Your task to perform on an android device: Go to Yahoo.com Image 0: 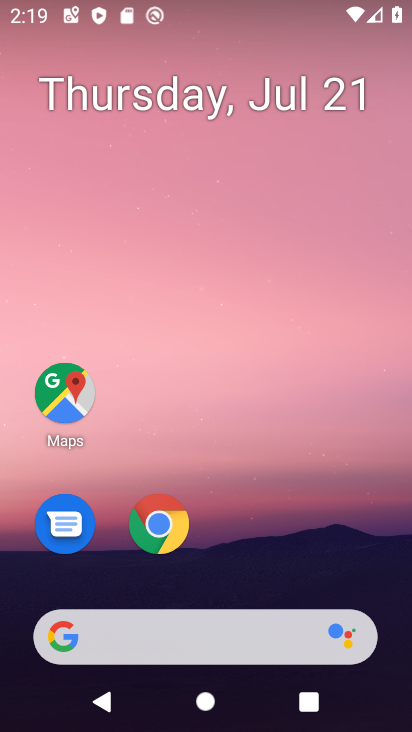
Step 0: drag from (276, 502) to (259, 18)
Your task to perform on an android device: Go to Yahoo.com Image 1: 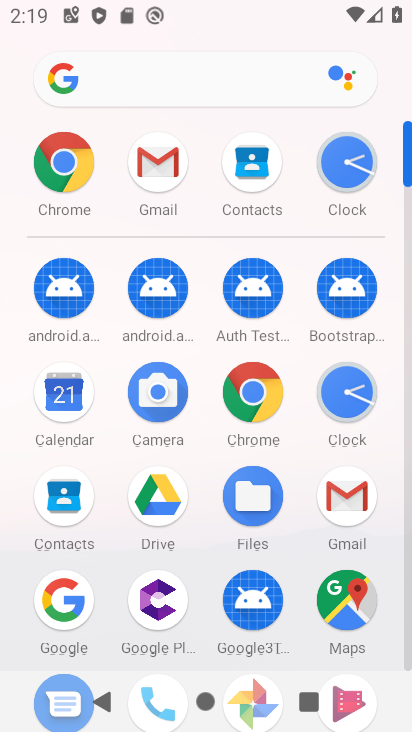
Step 1: click (58, 606)
Your task to perform on an android device: Go to Yahoo.com Image 2: 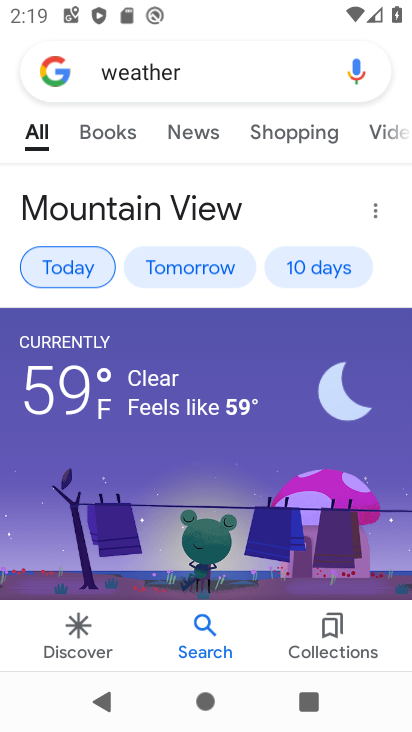
Step 2: click (52, 55)
Your task to perform on an android device: Go to Yahoo.com Image 3: 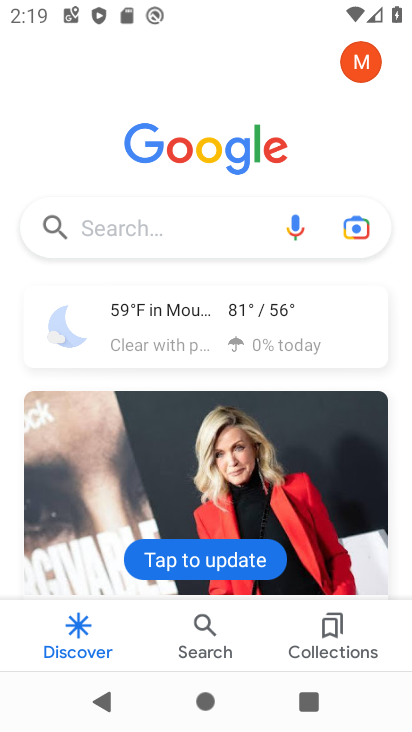
Step 3: click (139, 225)
Your task to perform on an android device: Go to Yahoo.com Image 4: 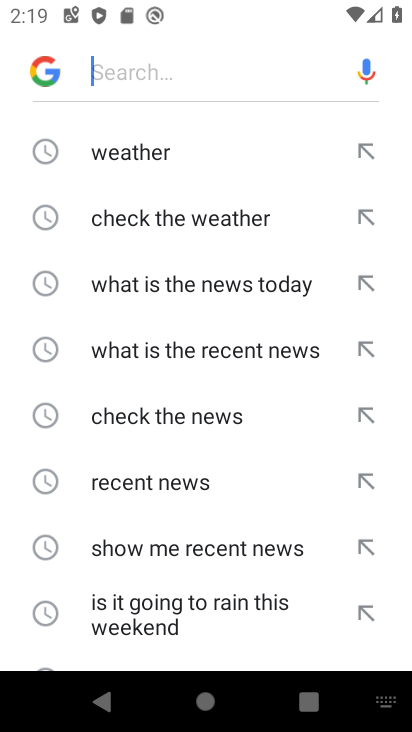
Step 4: type "yahoo.com"
Your task to perform on an android device: Go to Yahoo.com Image 5: 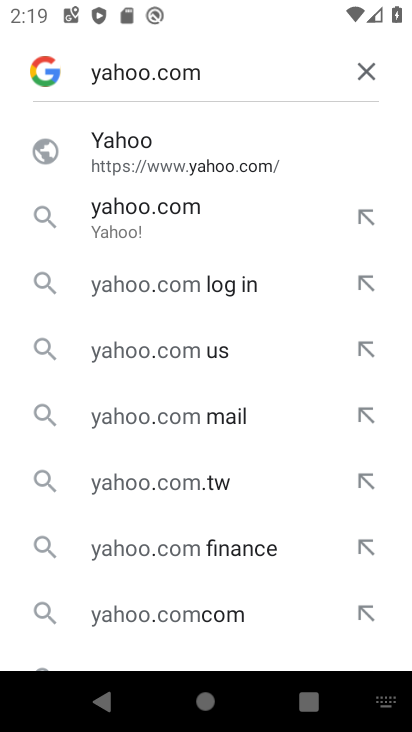
Step 5: click (209, 213)
Your task to perform on an android device: Go to Yahoo.com Image 6: 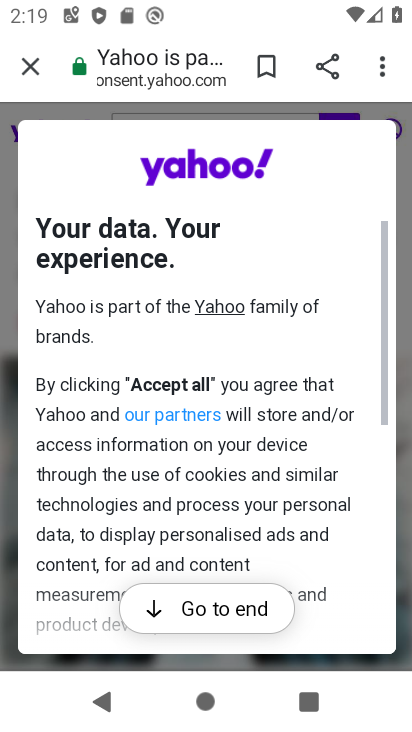
Step 6: click (231, 611)
Your task to perform on an android device: Go to Yahoo.com Image 7: 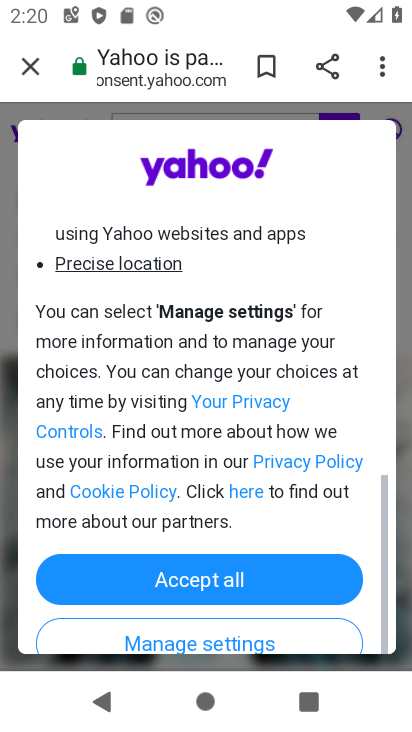
Step 7: click (241, 580)
Your task to perform on an android device: Go to Yahoo.com Image 8: 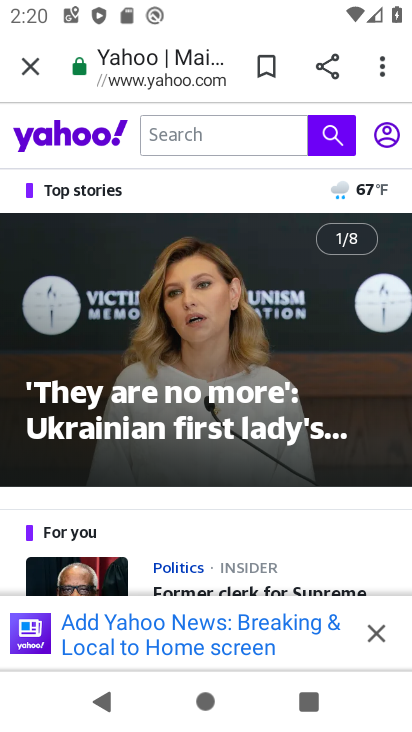
Step 8: task complete